Your task to perform on an android device: change alarm snooze length Image 0: 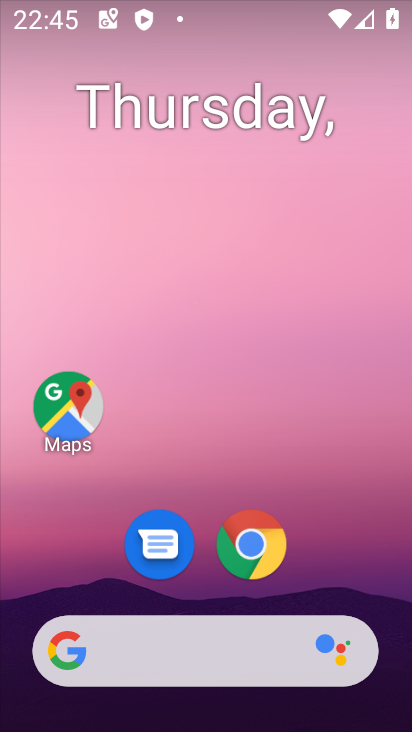
Step 0: drag from (345, 534) to (236, 49)
Your task to perform on an android device: change alarm snooze length Image 1: 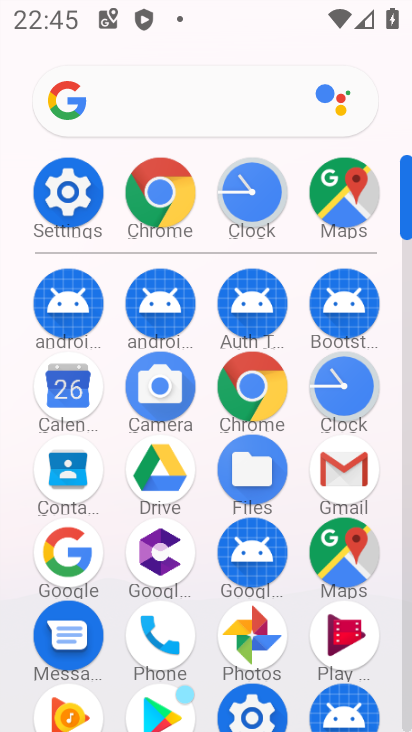
Step 1: click (251, 188)
Your task to perform on an android device: change alarm snooze length Image 2: 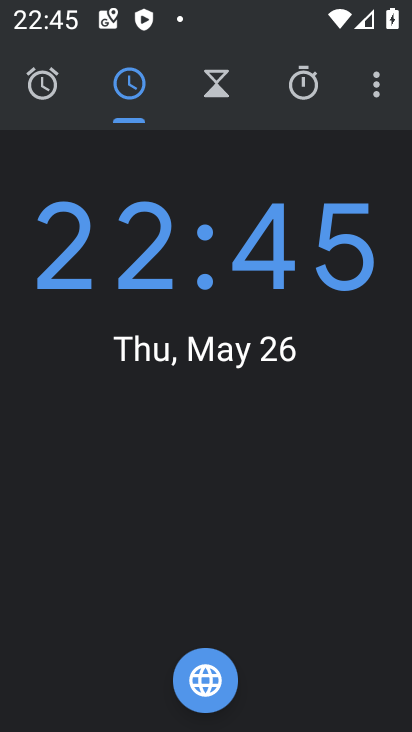
Step 2: click (377, 85)
Your task to perform on an android device: change alarm snooze length Image 3: 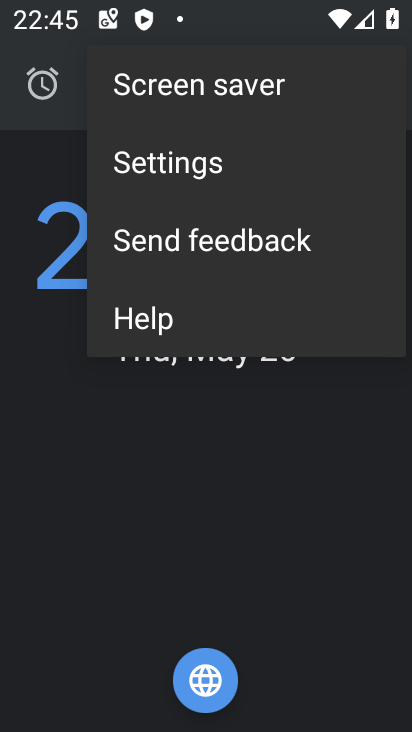
Step 3: click (219, 162)
Your task to perform on an android device: change alarm snooze length Image 4: 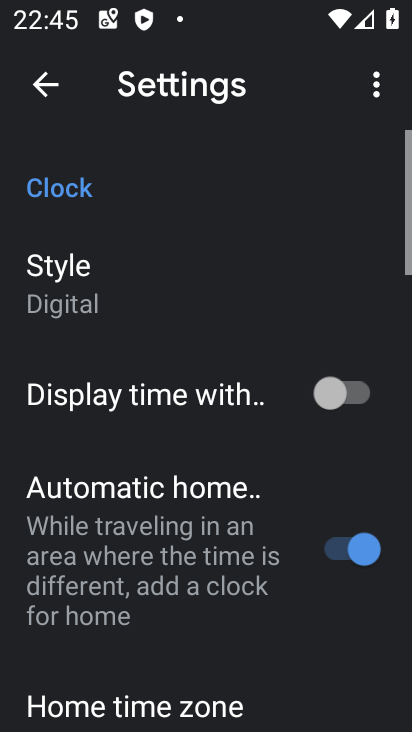
Step 4: drag from (132, 632) to (182, 297)
Your task to perform on an android device: change alarm snooze length Image 5: 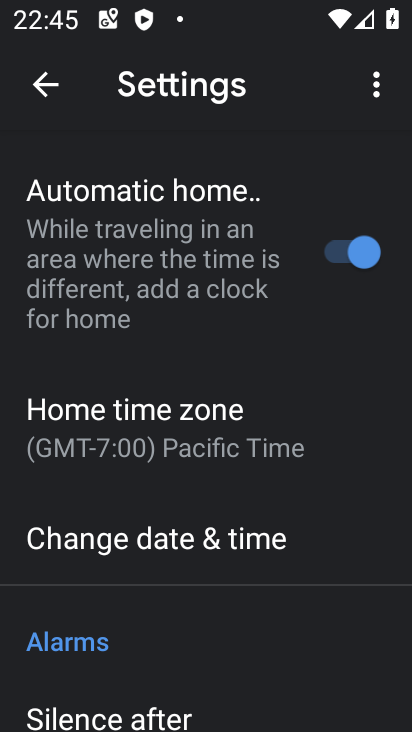
Step 5: drag from (196, 595) to (202, 225)
Your task to perform on an android device: change alarm snooze length Image 6: 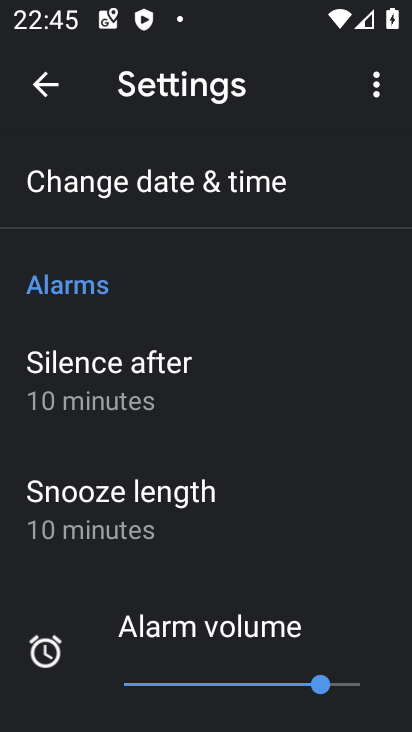
Step 6: click (132, 490)
Your task to perform on an android device: change alarm snooze length Image 7: 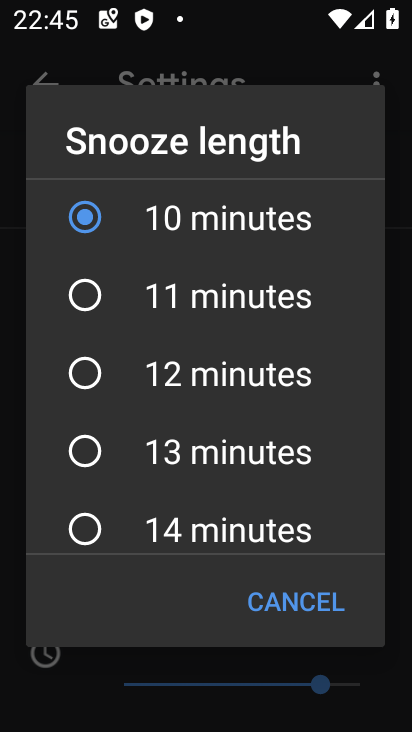
Step 7: click (147, 288)
Your task to perform on an android device: change alarm snooze length Image 8: 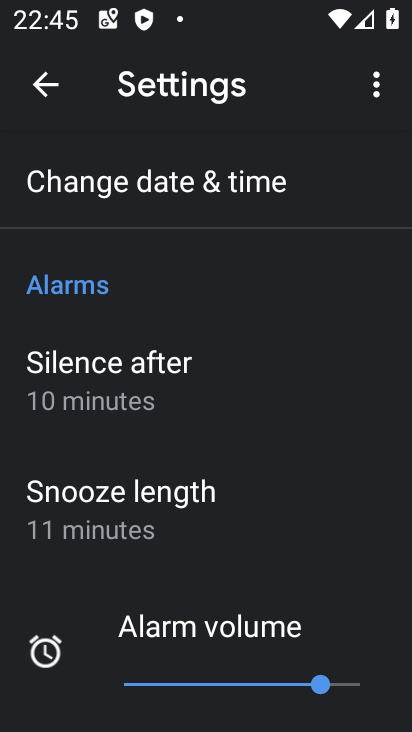
Step 8: task complete